Your task to perform on an android device: Go to settings Image 0: 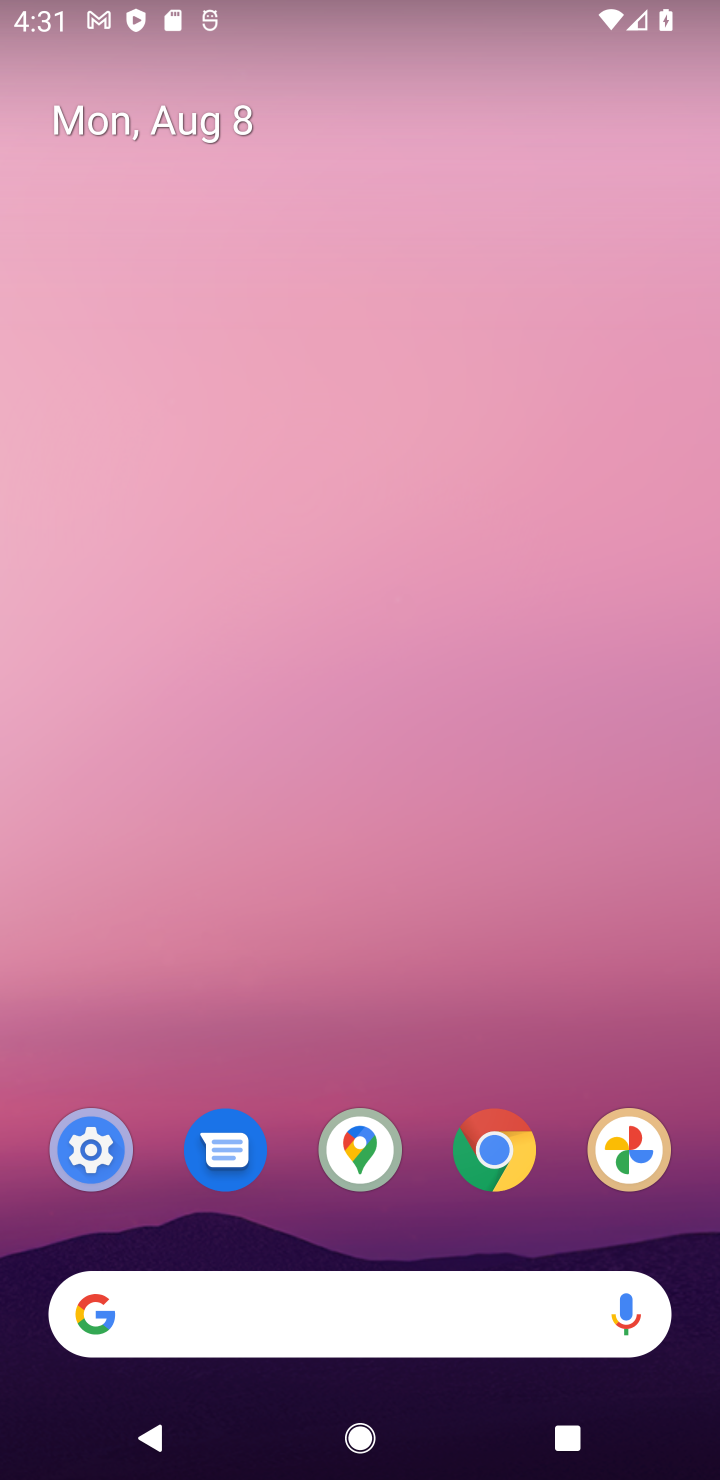
Step 0: click (86, 1173)
Your task to perform on an android device: Go to settings Image 1: 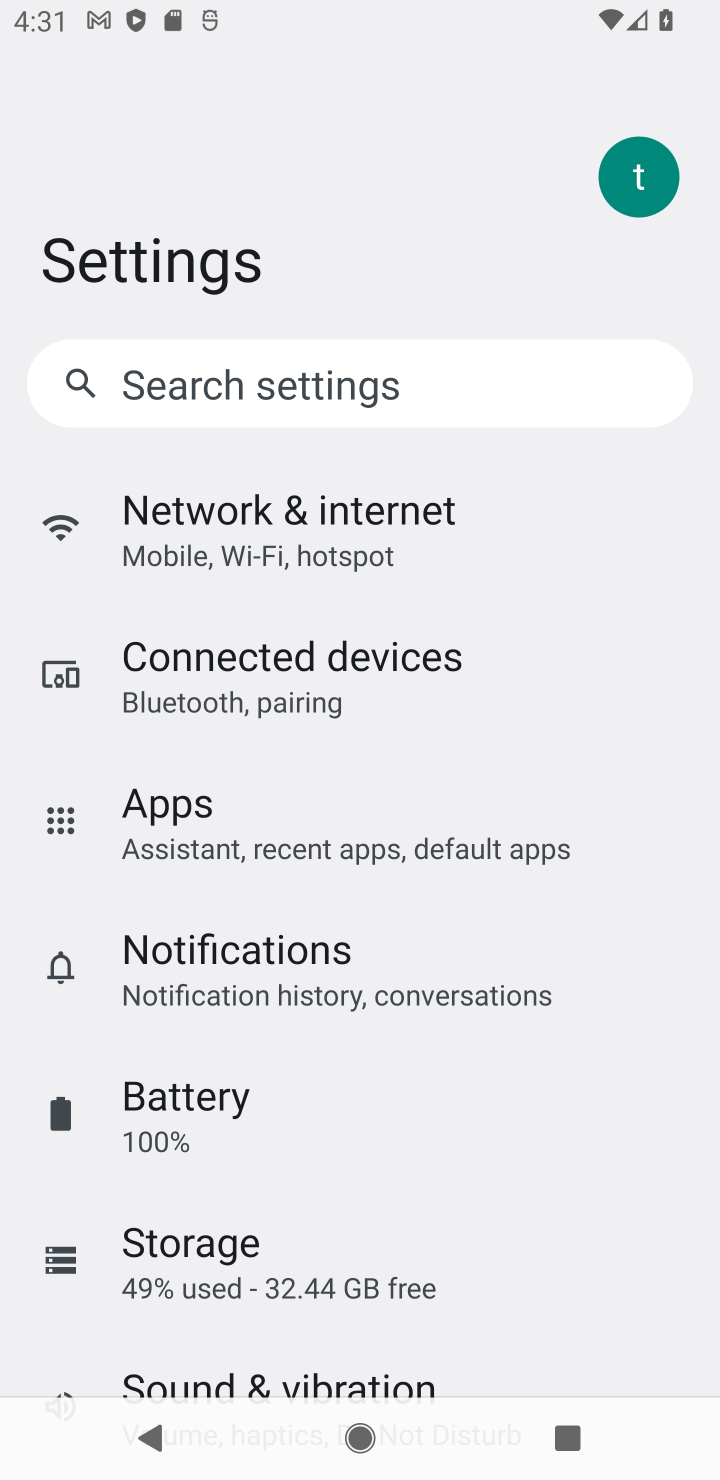
Step 1: task complete